Your task to perform on an android device: turn on location history Image 0: 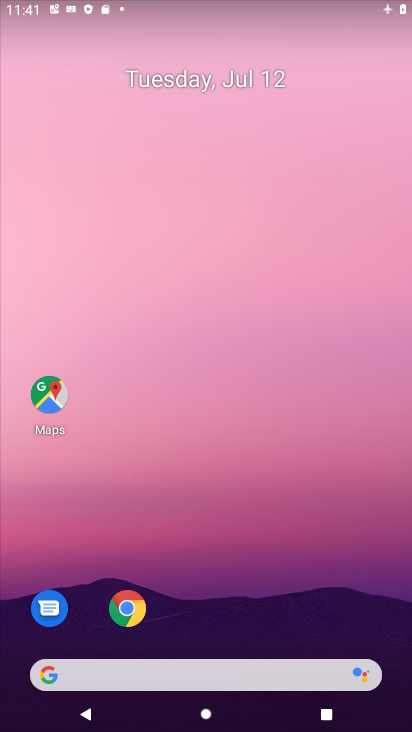
Step 0: drag from (241, 729) to (344, 1)
Your task to perform on an android device: turn on location history Image 1: 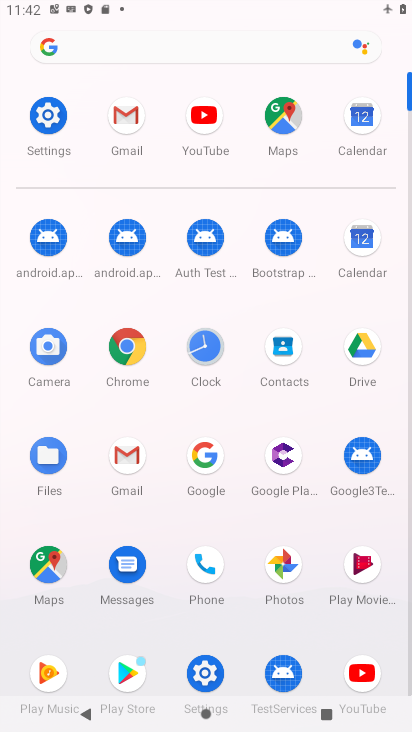
Step 1: click (49, 114)
Your task to perform on an android device: turn on location history Image 2: 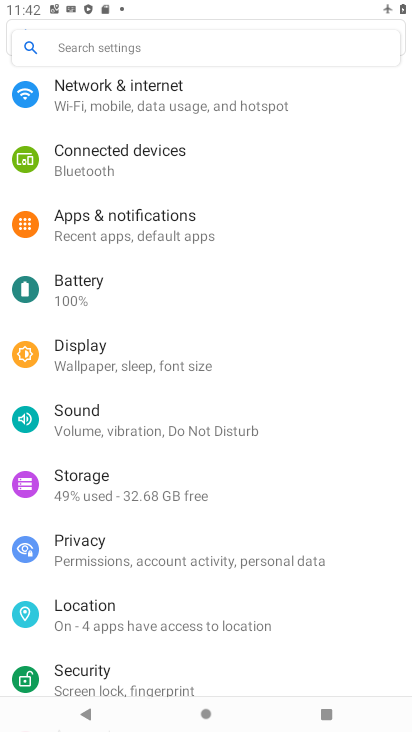
Step 2: click (117, 614)
Your task to perform on an android device: turn on location history Image 3: 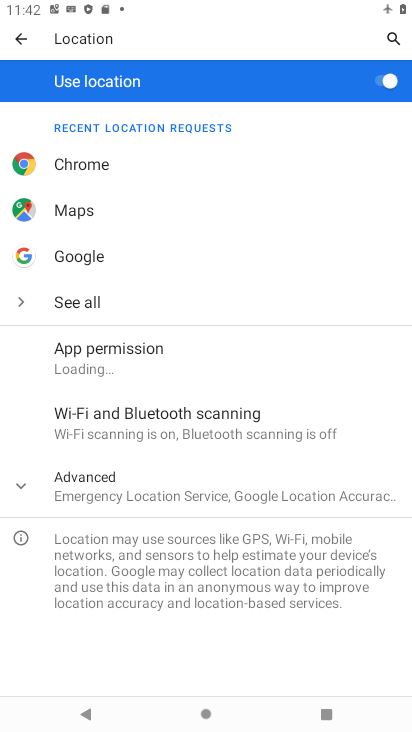
Step 3: click (121, 488)
Your task to perform on an android device: turn on location history Image 4: 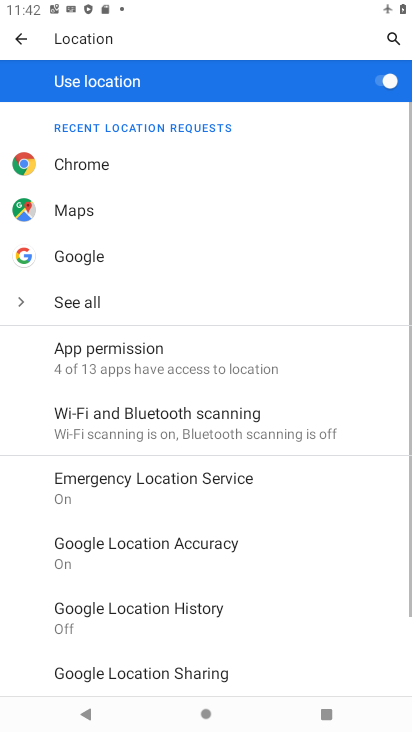
Step 4: click (167, 607)
Your task to perform on an android device: turn on location history Image 5: 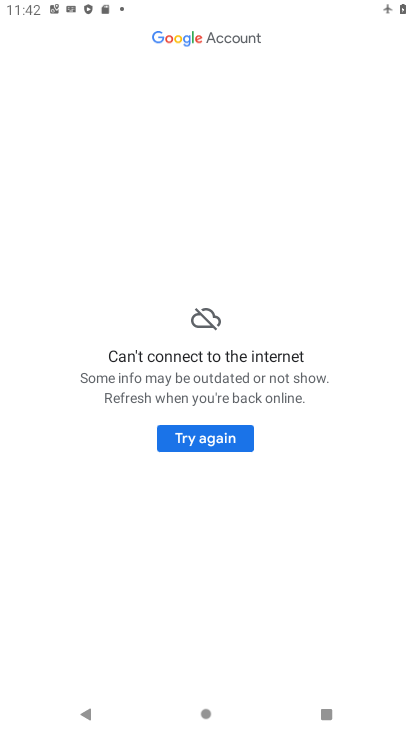
Step 5: task complete